Your task to perform on an android device: Open the Play Movies app and select the watchlist tab. Image 0: 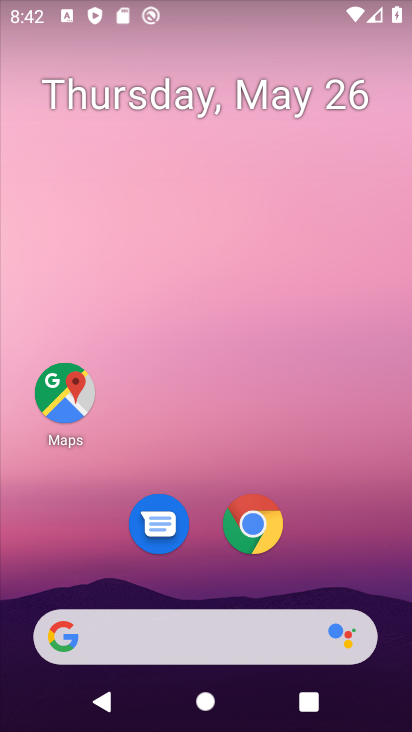
Step 0: drag from (228, 471) to (168, 3)
Your task to perform on an android device: Open the Play Movies app and select the watchlist tab. Image 1: 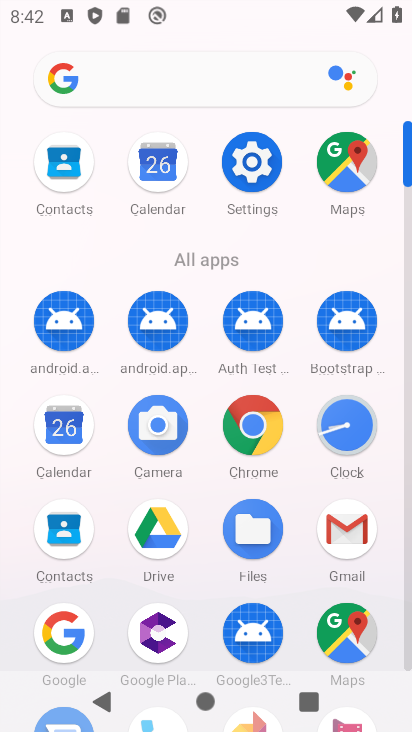
Step 1: drag from (294, 483) to (276, 184)
Your task to perform on an android device: Open the Play Movies app and select the watchlist tab. Image 2: 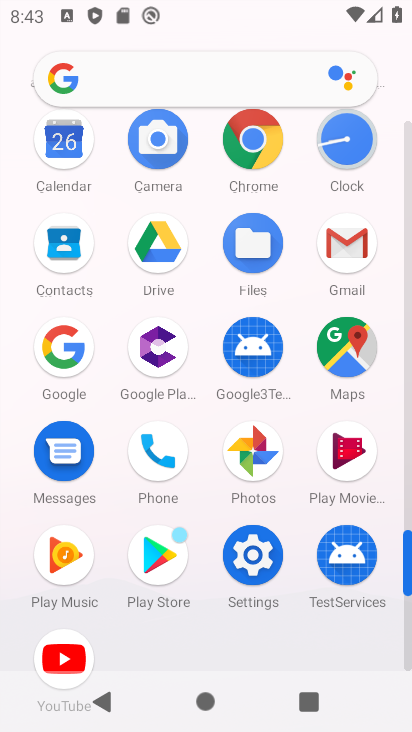
Step 2: click (353, 443)
Your task to perform on an android device: Open the Play Movies app and select the watchlist tab. Image 3: 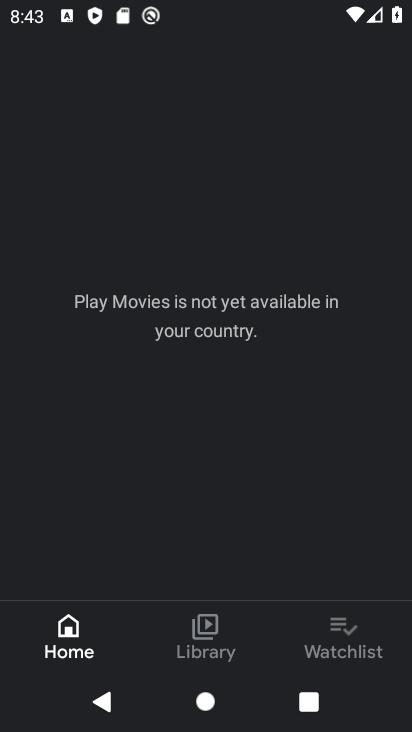
Step 3: click (343, 640)
Your task to perform on an android device: Open the Play Movies app and select the watchlist tab. Image 4: 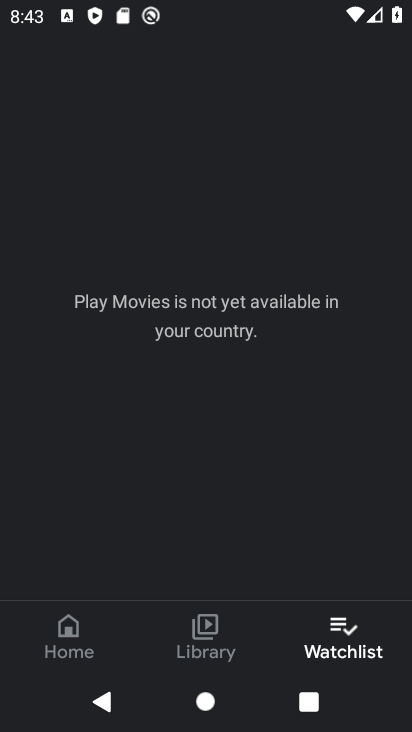
Step 4: task complete